Your task to perform on an android device: turn off notifications settings in the gmail app Image 0: 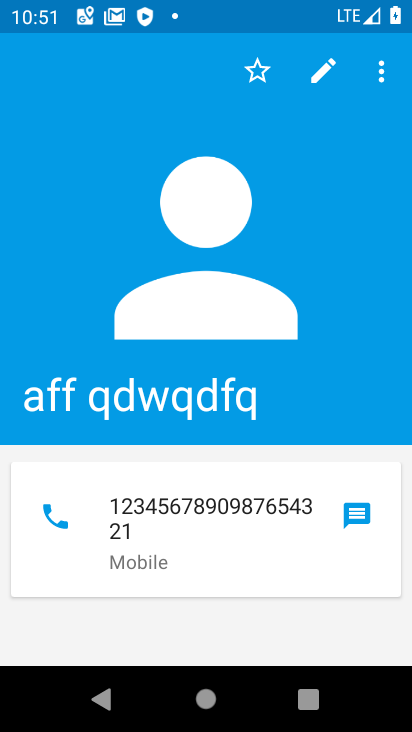
Step 0: press home button
Your task to perform on an android device: turn off notifications settings in the gmail app Image 1: 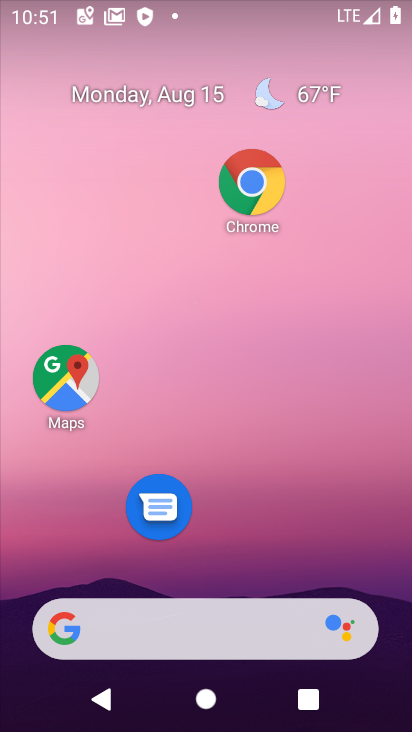
Step 1: task complete